Your task to perform on an android device: Open the phone app and click the voicemail tab. Image 0: 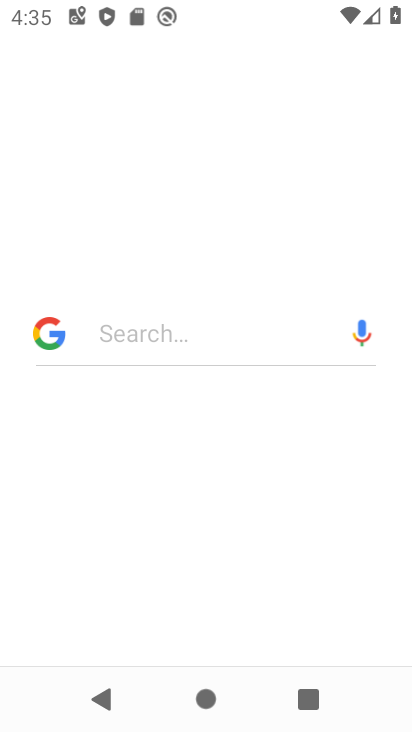
Step 0: click (147, 256)
Your task to perform on an android device: Open the phone app and click the voicemail tab. Image 1: 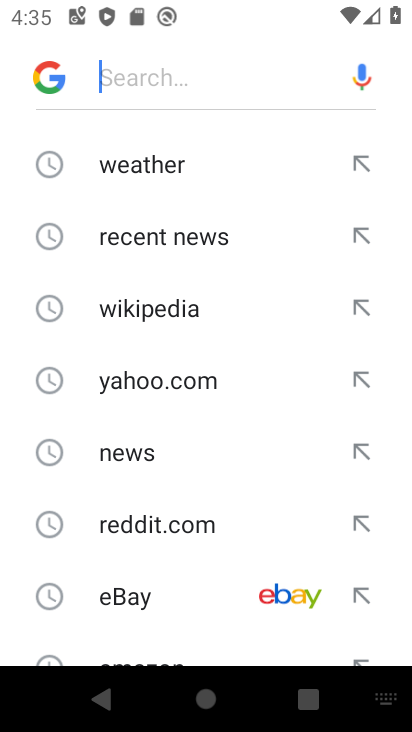
Step 1: press home button
Your task to perform on an android device: Open the phone app and click the voicemail tab. Image 2: 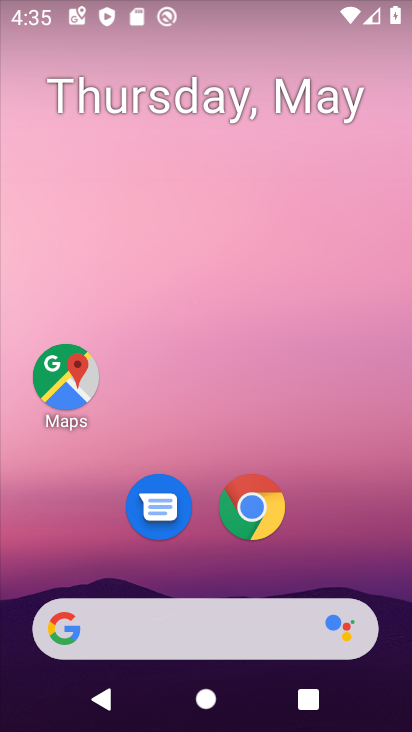
Step 2: drag from (363, 521) to (87, 160)
Your task to perform on an android device: Open the phone app and click the voicemail tab. Image 3: 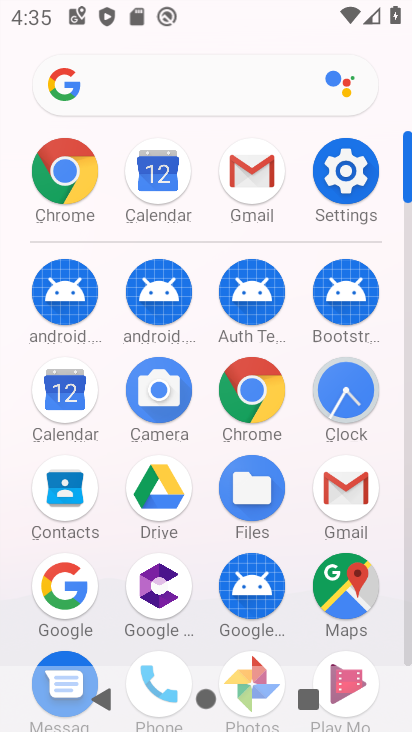
Step 3: drag from (188, 520) to (154, 44)
Your task to perform on an android device: Open the phone app and click the voicemail tab. Image 4: 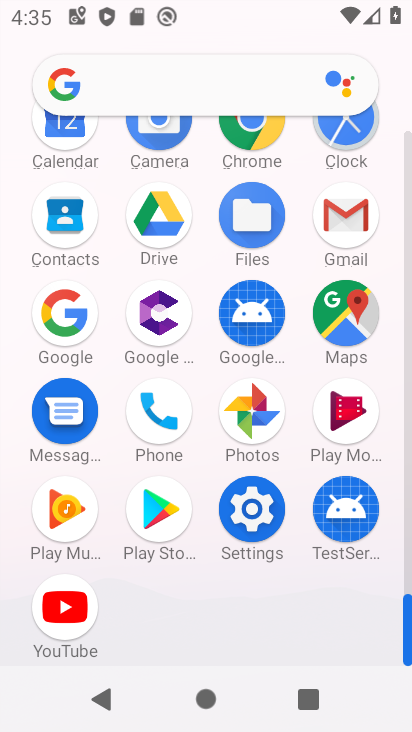
Step 4: drag from (198, 369) to (215, 129)
Your task to perform on an android device: Open the phone app and click the voicemail tab. Image 5: 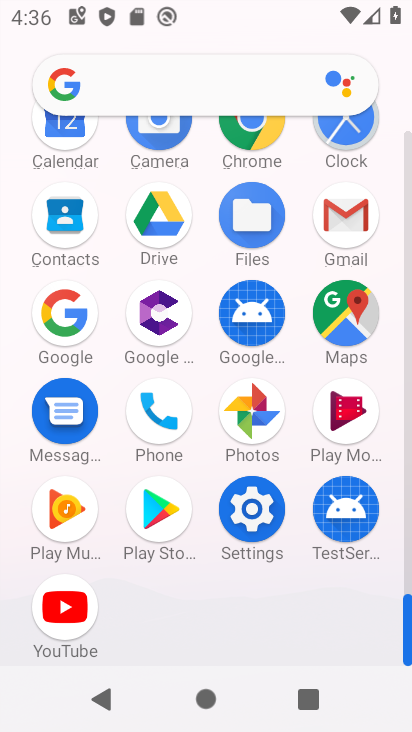
Step 5: click (148, 426)
Your task to perform on an android device: Open the phone app and click the voicemail tab. Image 6: 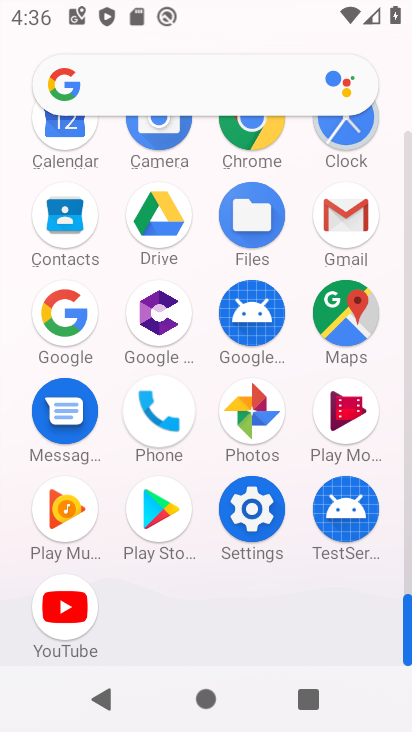
Step 6: click (149, 425)
Your task to perform on an android device: Open the phone app and click the voicemail tab. Image 7: 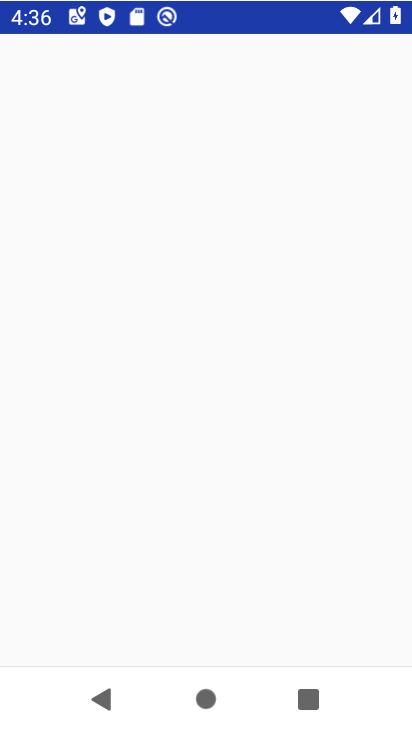
Step 7: click (151, 427)
Your task to perform on an android device: Open the phone app and click the voicemail tab. Image 8: 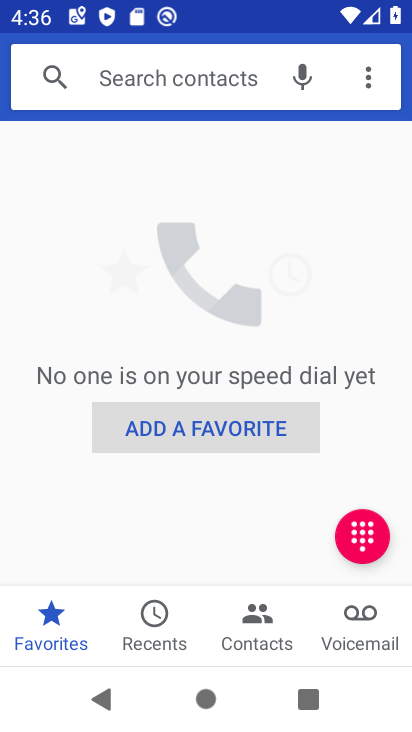
Step 8: click (150, 429)
Your task to perform on an android device: Open the phone app and click the voicemail tab. Image 9: 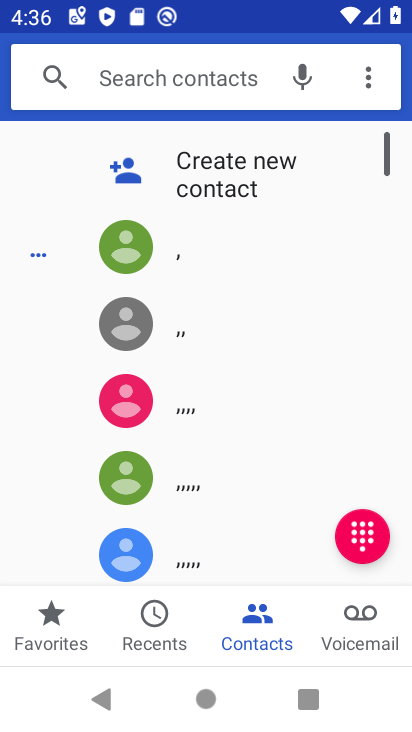
Step 9: click (371, 627)
Your task to perform on an android device: Open the phone app and click the voicemail tab. Image 10: 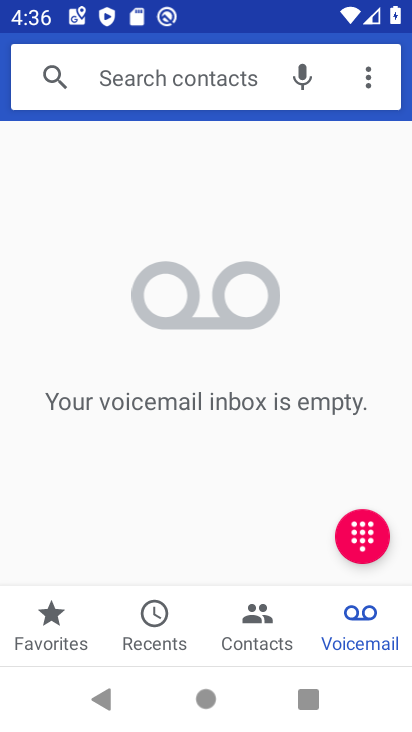
Step 10: task complete